Your task to perform on an android device: What's the weather today? Image 0: 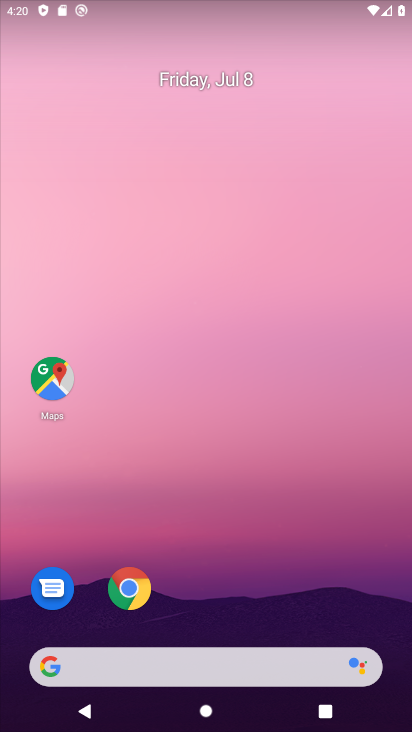
Step 0: click (165, 668)
Your task to perform on an android device: What's the weather today? Image 1: 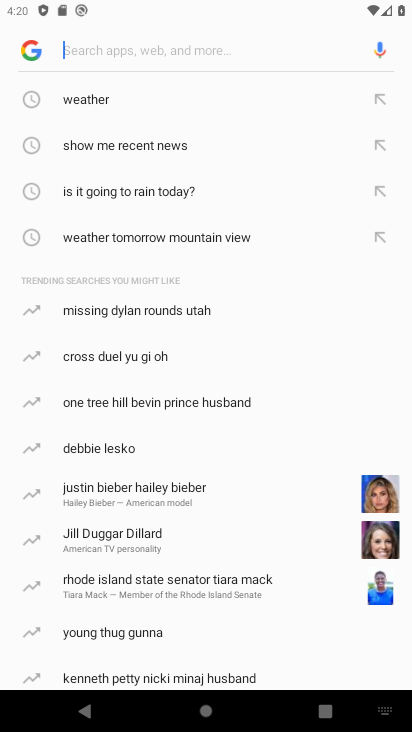
Step 1: type "What's the weather today?"
Your task to perform on an android device: What's the weather today? Image 2: 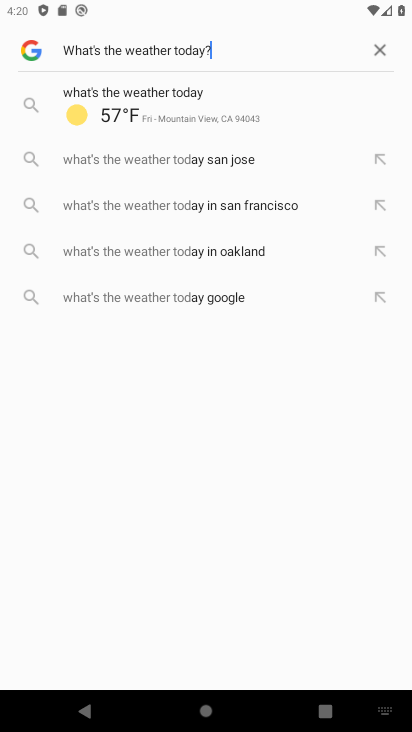
Step 2: press enter
Your task to perform on an android device: What's the weather today? Image 3: 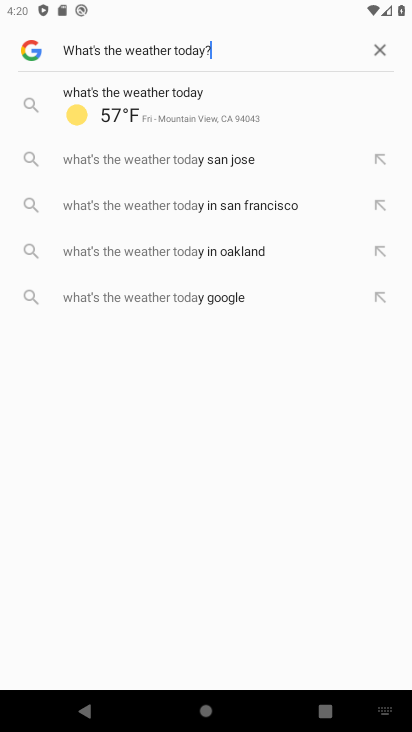
Step 3: type ""
Your task to perform on an android device: What's the weather today? Image 4: 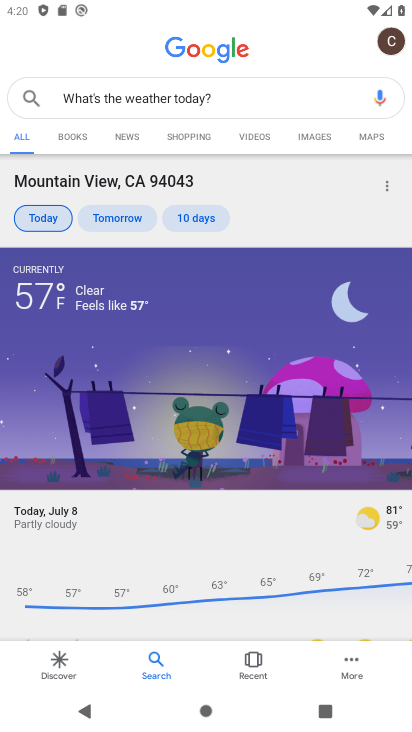
Step 4: task complete